Your task to perform on an android device: Check the news Image 0: 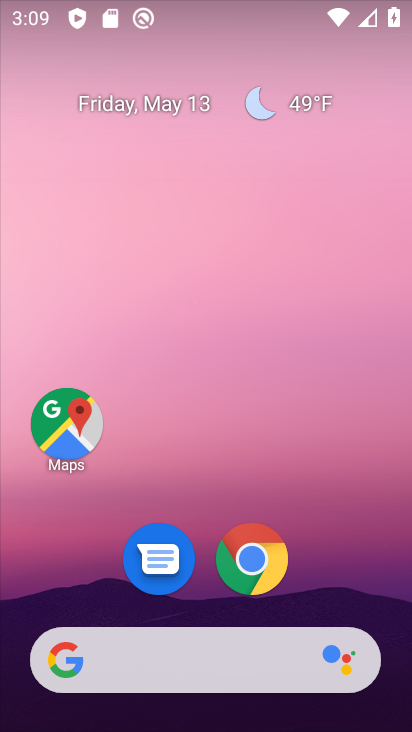
Step 0: drag from (0, 257) to (406, 349)
Your task to perform on an android device: Check the news Image 1: 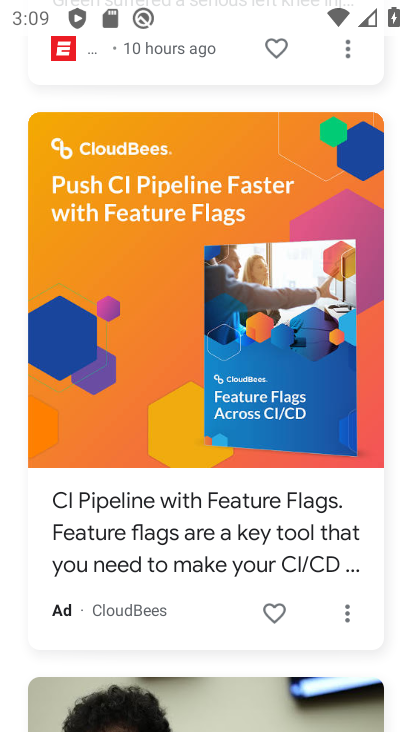
Step 1: task complete